Your task to perform on an android device: Show me productivity apps on the Play Store Image 0: 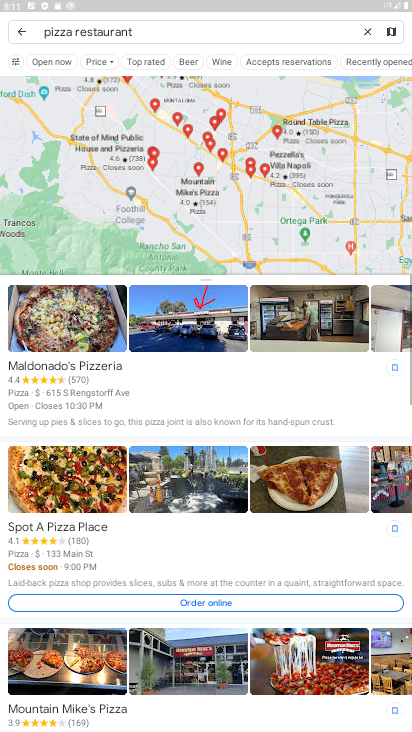
Step 0: drag from (369, 666) to (352, 317)
Your task to perform on an android device: Show me productivity apps on the Play Store Image 1: 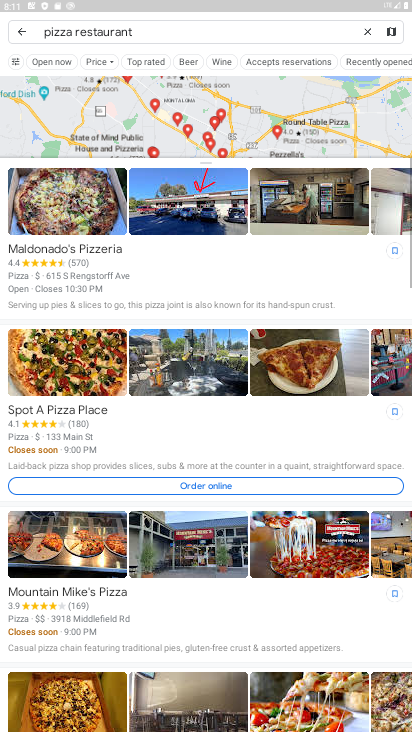
Step 1: press home button
Your task to perform on an android device: Show me productivity apps on the Play Store Image 2: 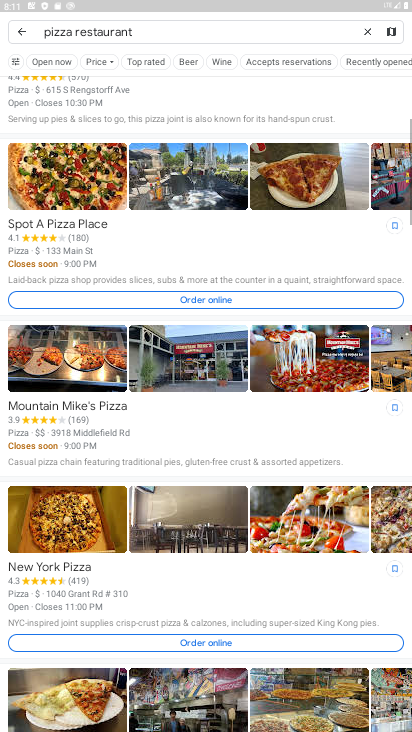
Step 2: drag from (325, 295) to (276, 33)
Your task to perform on an android device: Show me productivity apps on the Play Store Image 3: 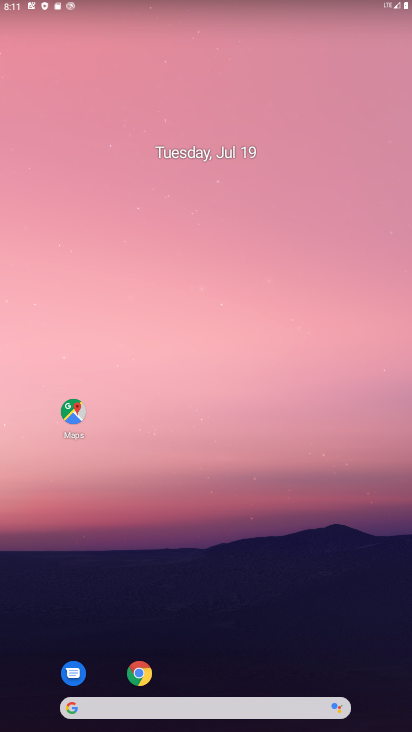
Step 3: drag from (372, 669) to (205, 66)
Your task to perform on an android device: Show me productivity apps on the Play Store Image 4: 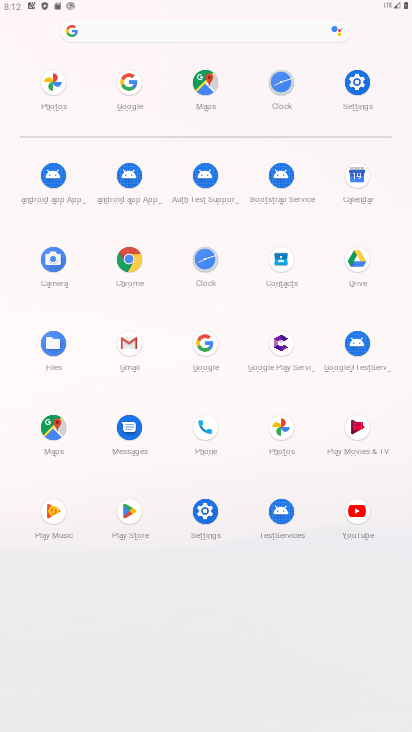
Step 4: click (110, 513)
Your task to perform on an android device: Show me productivity apps on the Play Store Image 5: 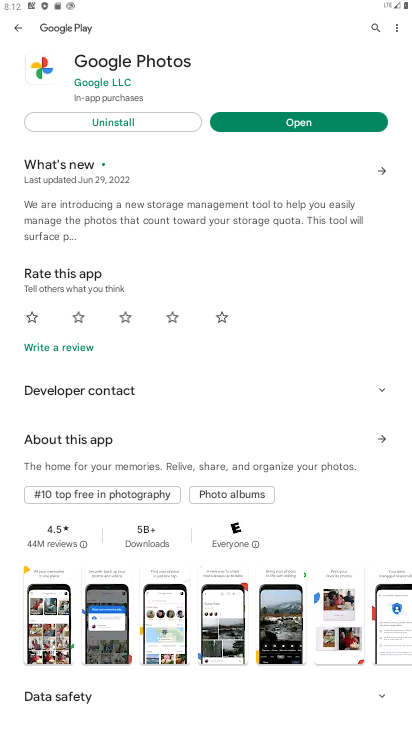
Step 5: task complete